Your task to perform on an android device: Add acer nitro to the cart on ebay Image 0: 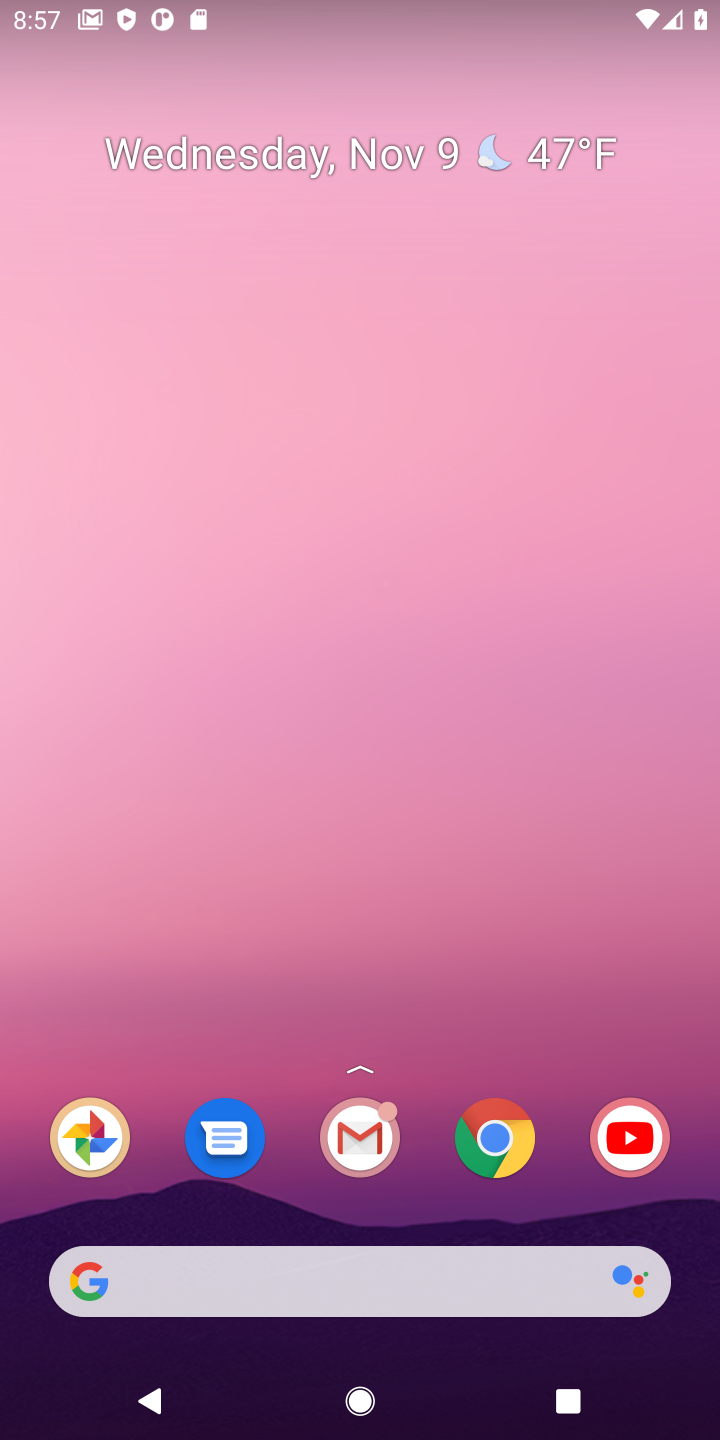
Step 0: drag from (474, 1066) to (537, 0)
Your task to perform on an android device: Add acer nitro to the cart on ebay Image 1: 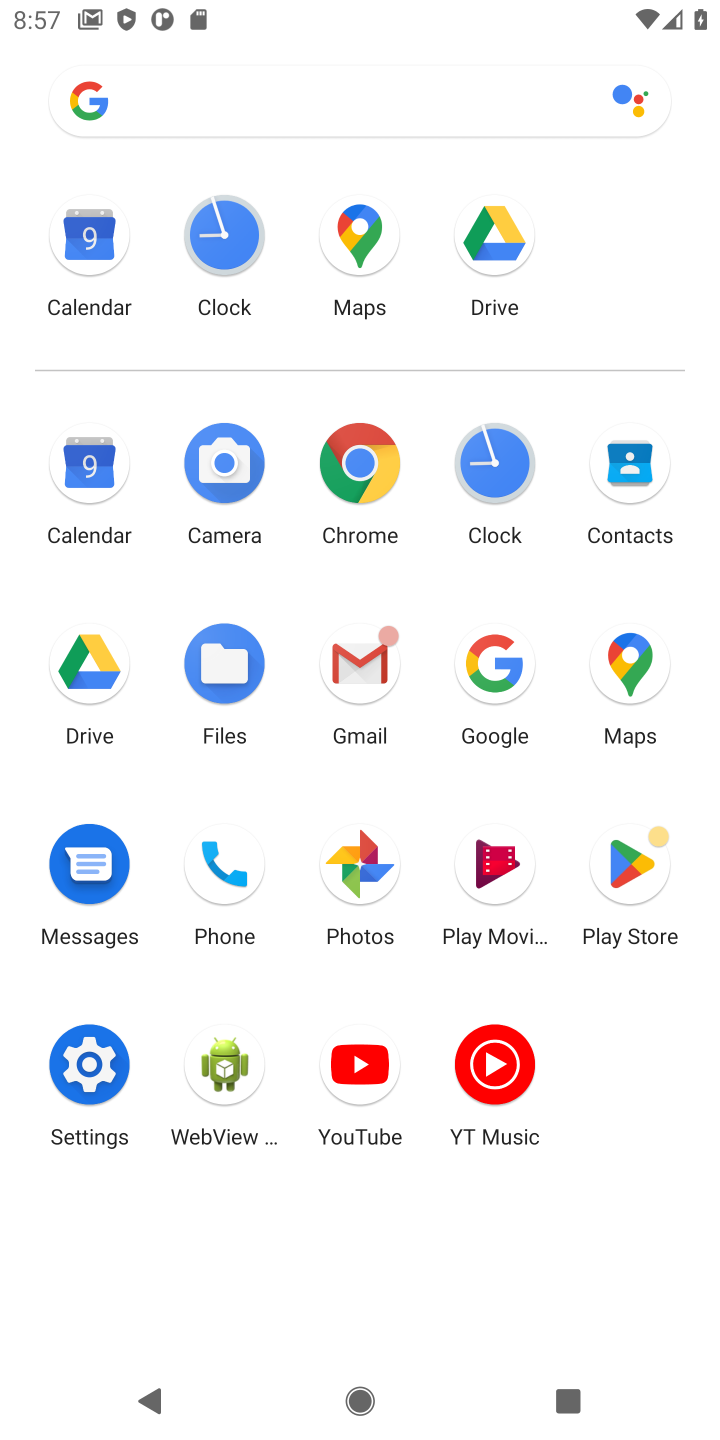
Step 1: click (372, 464)
Your task to perform on an android device: Add acer nitro to the cart on ebay Image 2: 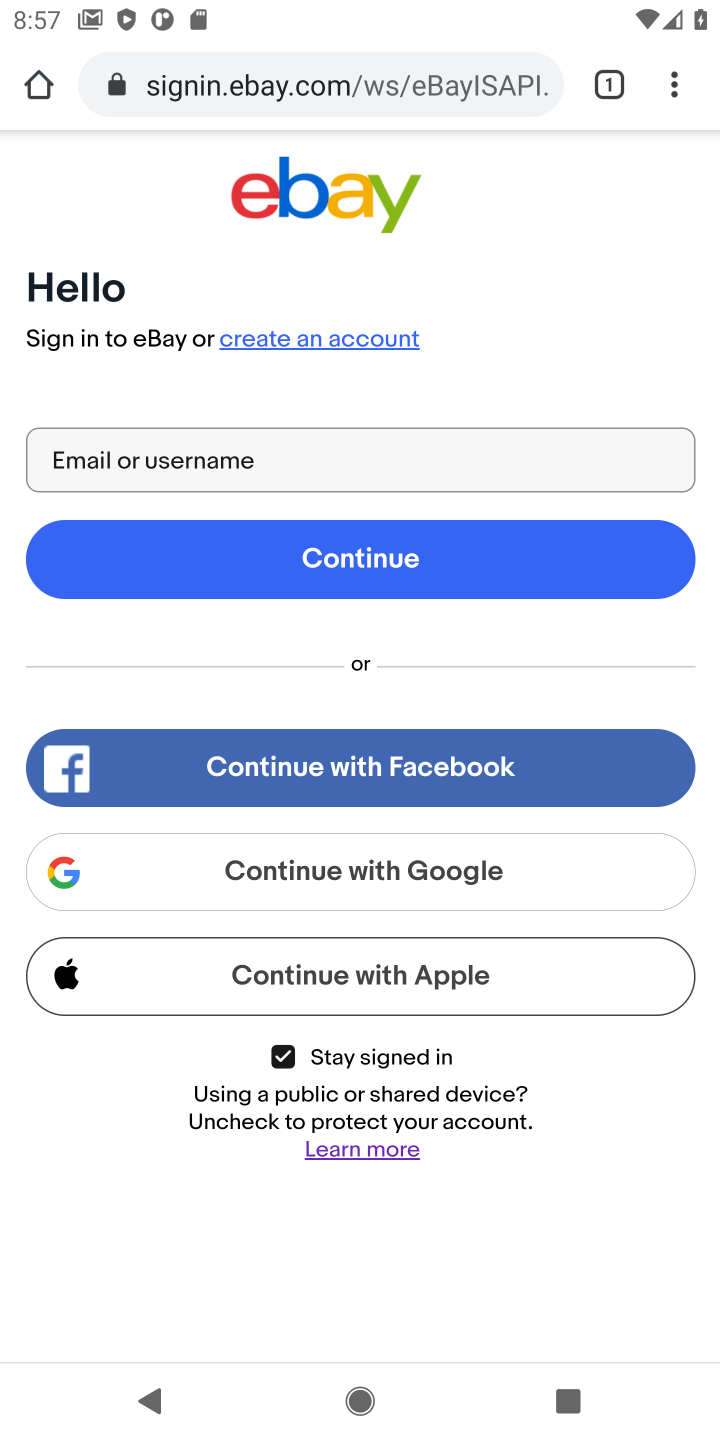
Step 2: click (395, 82)
Your task to perform on an android device: Add acer nitro to the cart on ebay Image 3: 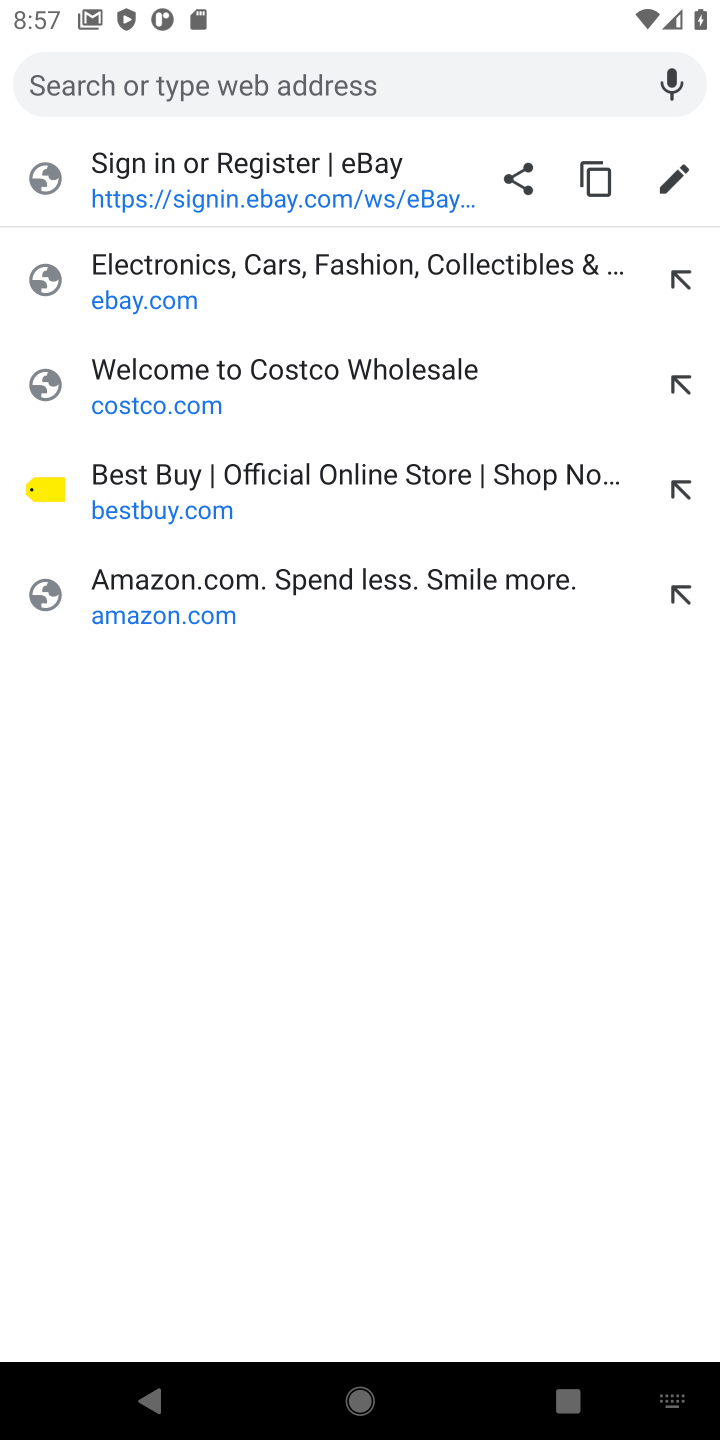
Step 3: type "ebay.com"
Your task to perform on an android device: Add acer nitro to the cart on ebay Image 4: 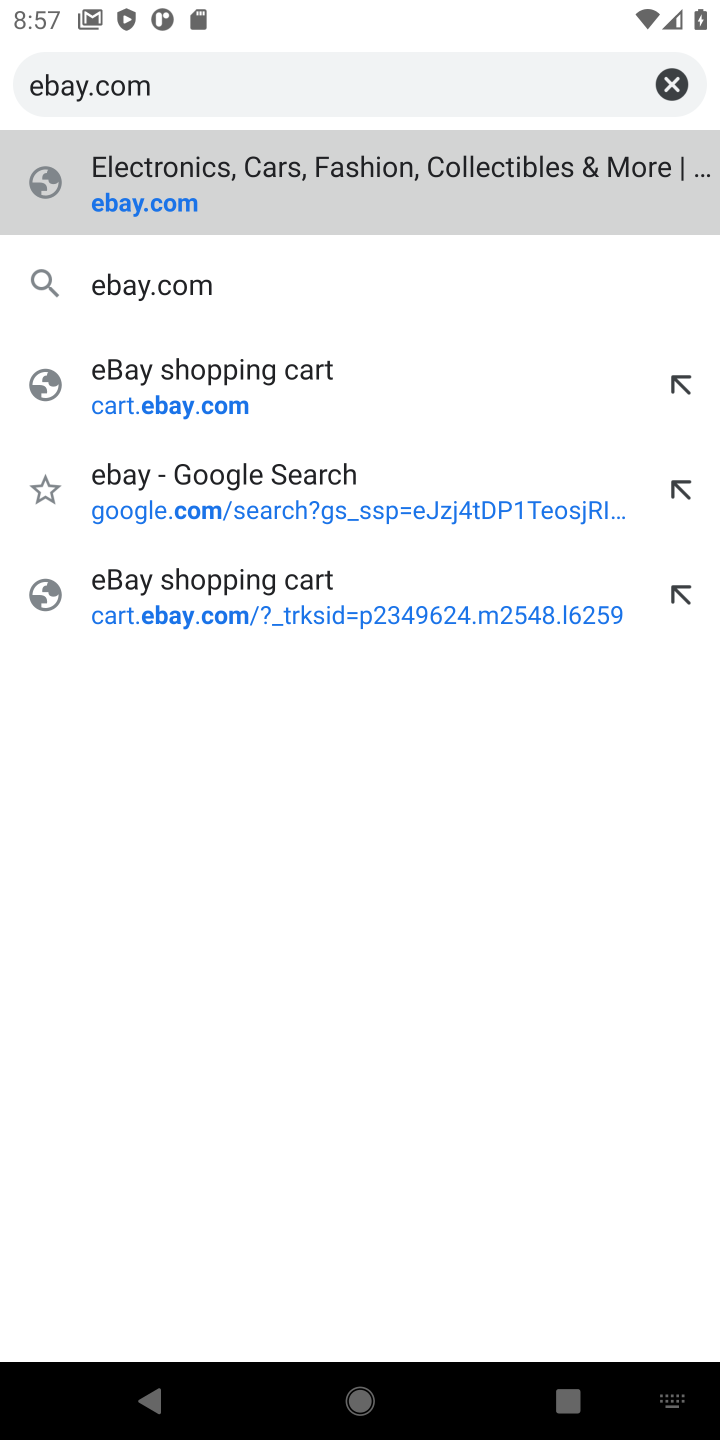
Step 4: press enter
Your task to perform on an android device: Add acer nitro to the cart on ebay Image 5: 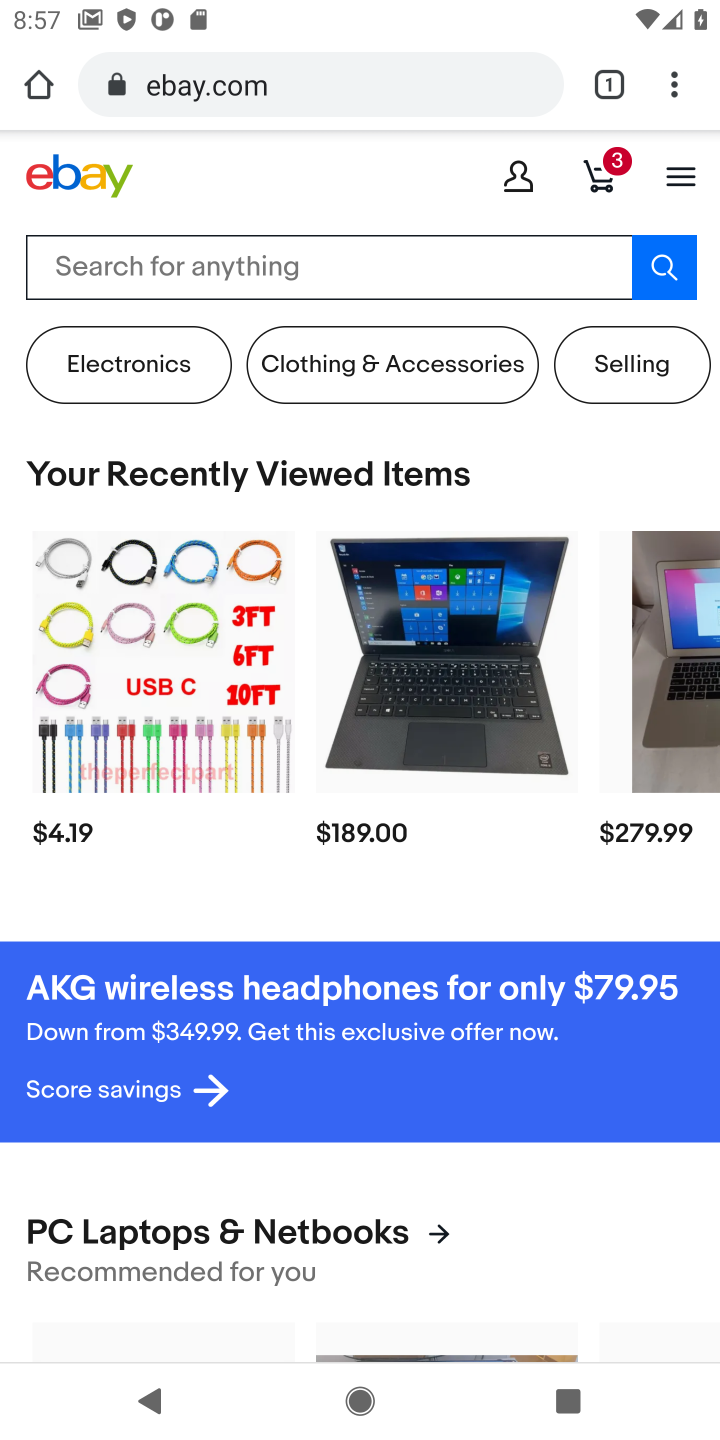
Step 5: click (485, 254)
Your task to perform on an android device: Add acer nitro to the cart on ebay Image 6: 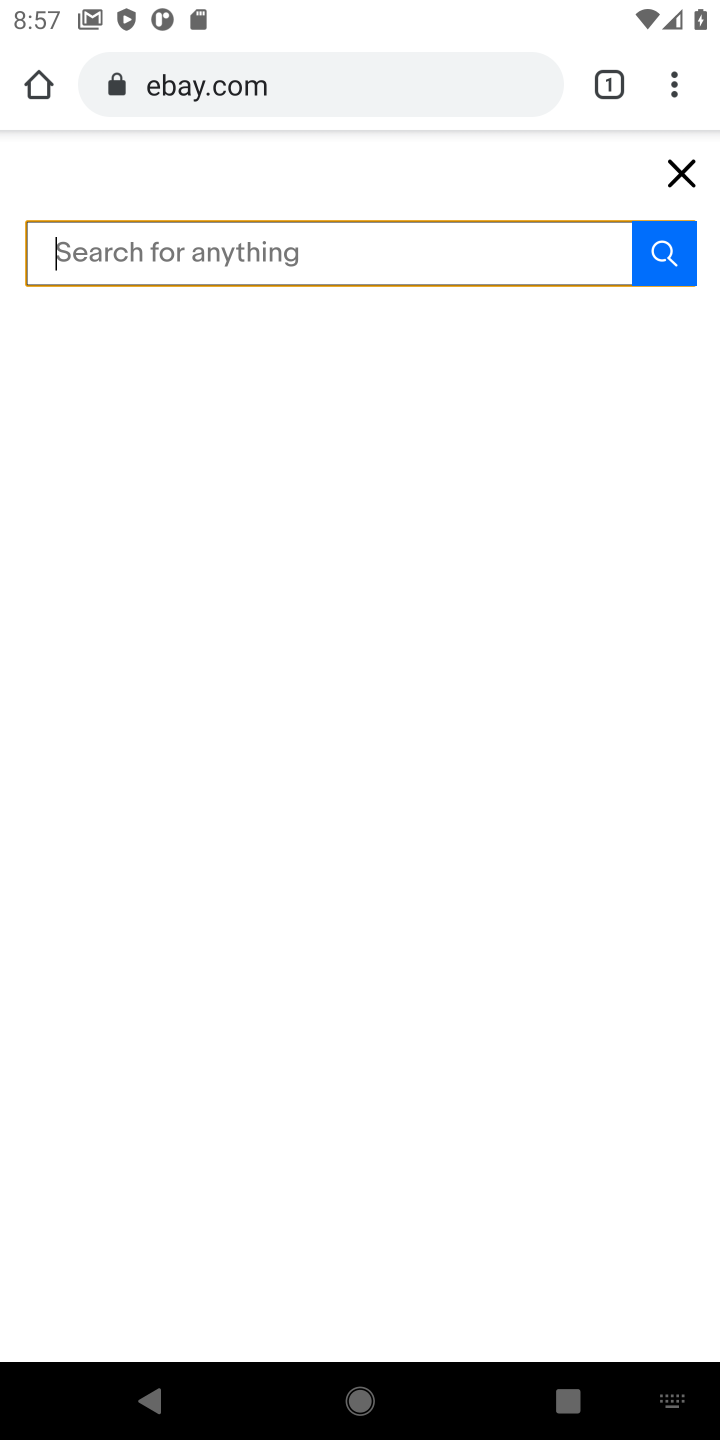
Step 6: type "acer nitro"
Your task to perform on an android device: Add acer nitro to the cart on ebay Image 7: 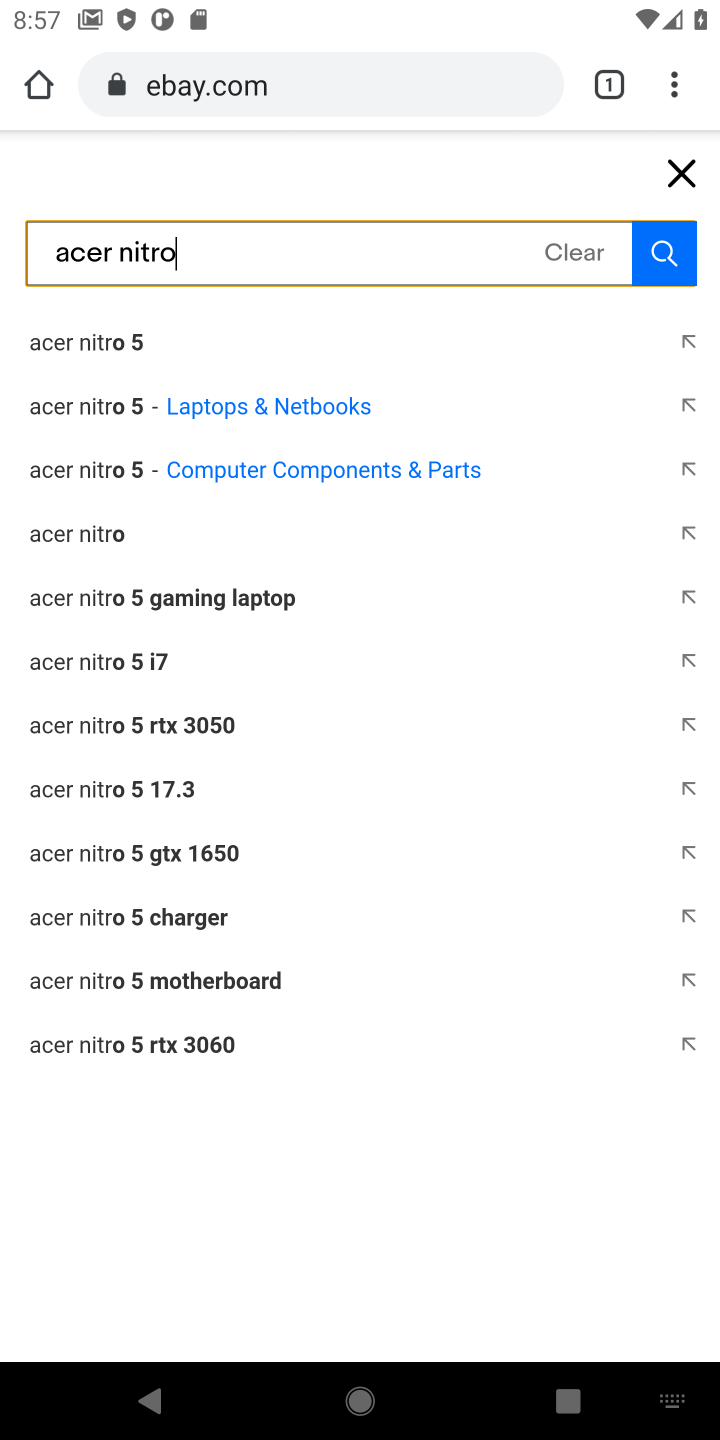
Step 7: press enter
Your task to perform on an android device: Add acer nitro to the cart on ebay Image 8: 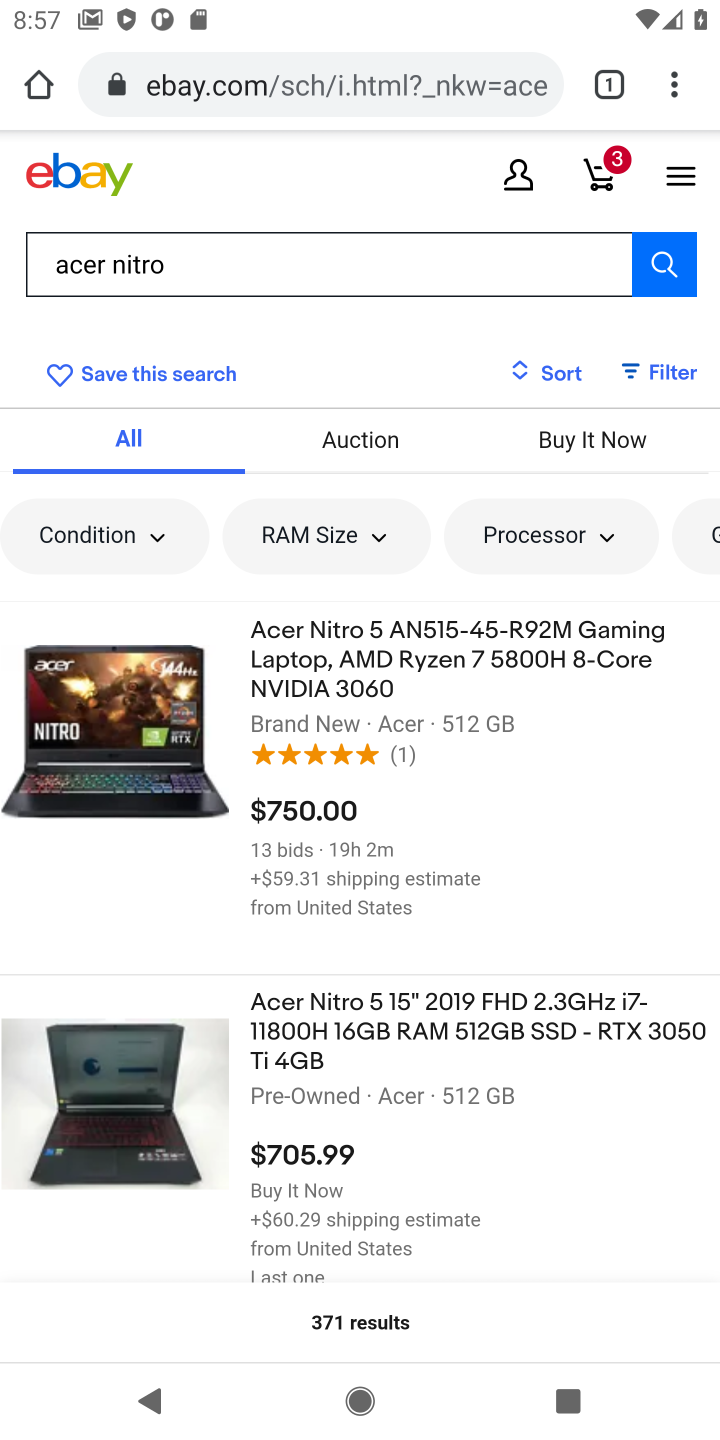
Step 8: click (341, 678)
Your task to perform on an android device: Add acer nitro to the cart on ebay Image 9: 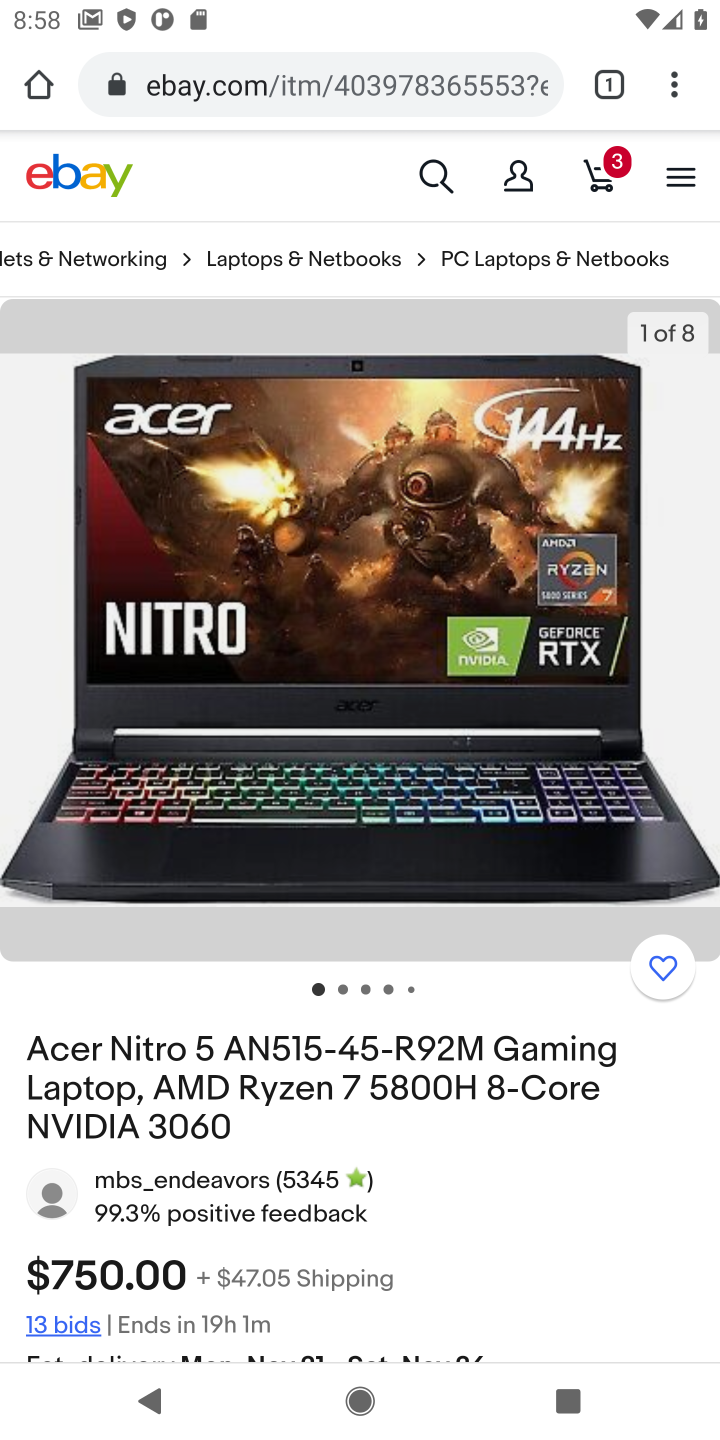
Step 9: task complete